Your task to perform on an android device: Open notification settings Image 0: 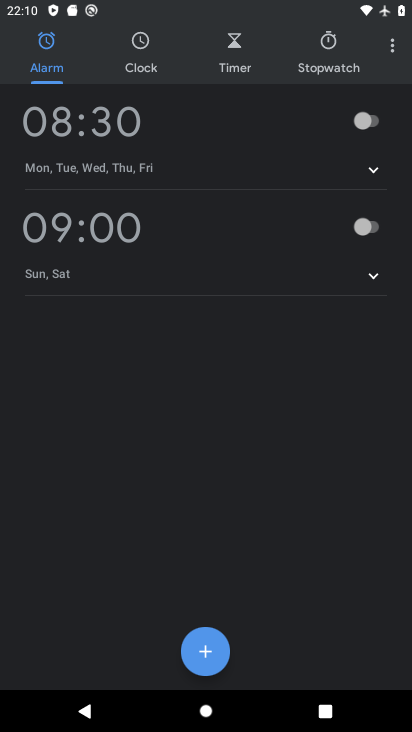
Step 0: press home button
Your task to perform on an android device: Open notification settings Image 1: 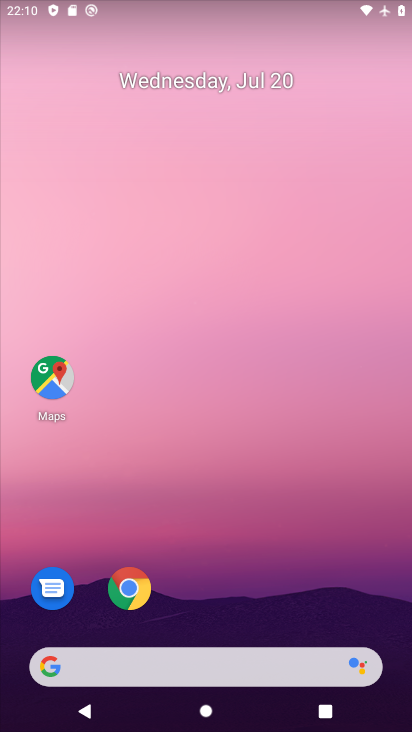
Step 1: drag from (340, 613) to (340, 65)
Your task to perform on an android device: Open notification settings Image 2: 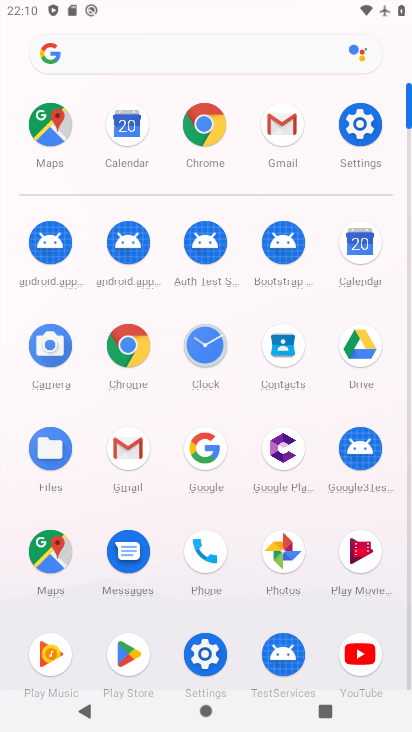
Step 2: click (205, 652)
Your task to perform on an android device: Open notification settings Image 3: 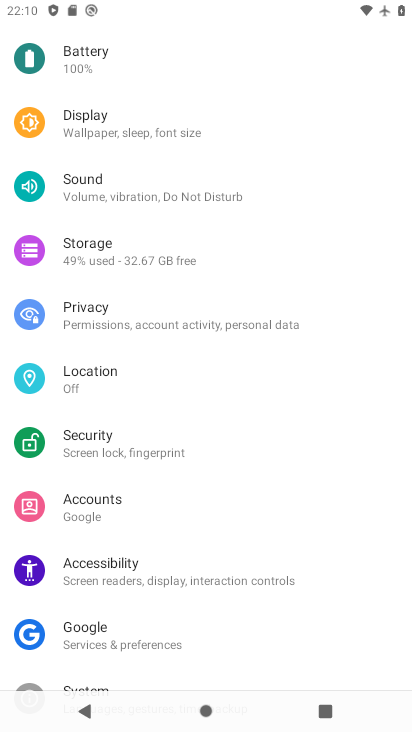
Step 3: drag from (340, 144) to (323, 398)
Your task to perform on an android device: Open notification settings Image 4: 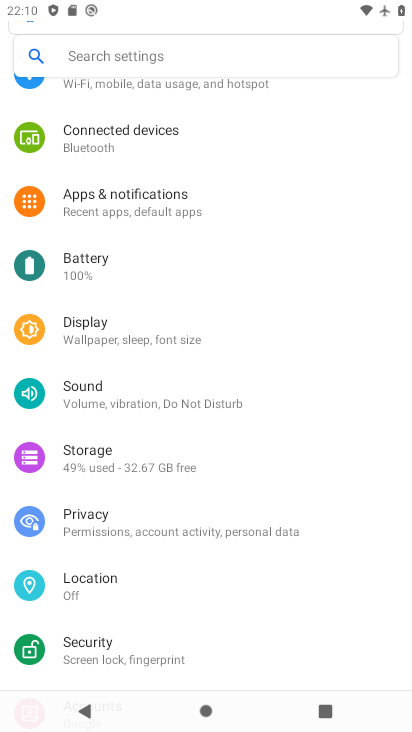
Step 4: click (116, 198)
Your task to perform on an android device: Open notification settings Image 5: 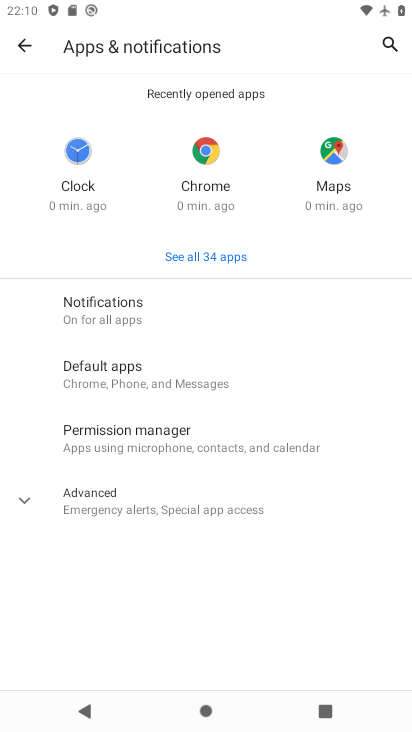
Step 5: click (106, 310)
Your task to perform on an android device: Open notification settings Image 6: 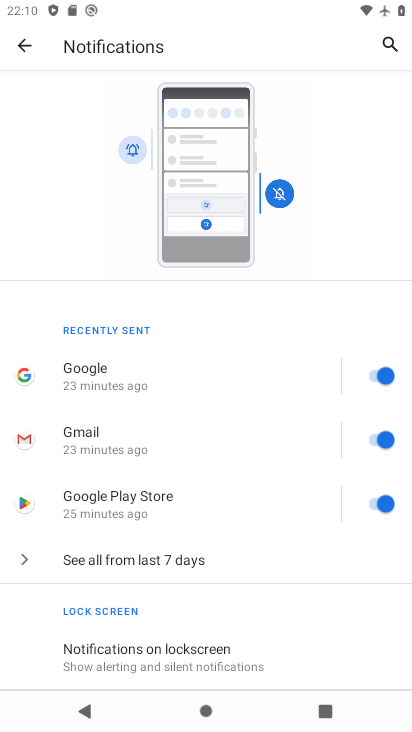
Step 6: drag from (239, 621) to (280, 156)
Your task to perform on an android device: Open notification settings Image 7: 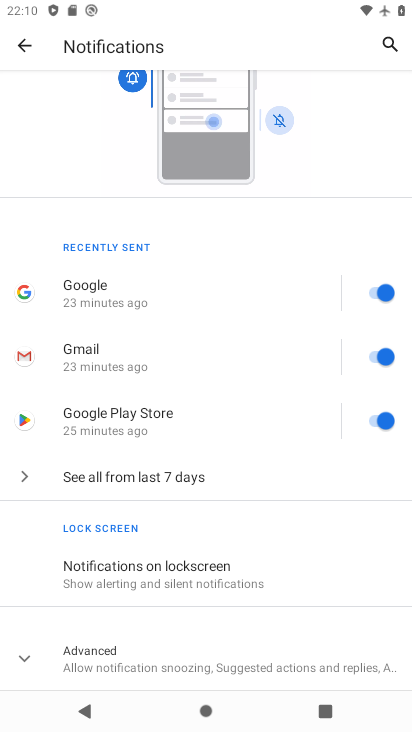
Step 7: click (21, 661)
Your task to perform on an android device: Open notification settings Image 8: 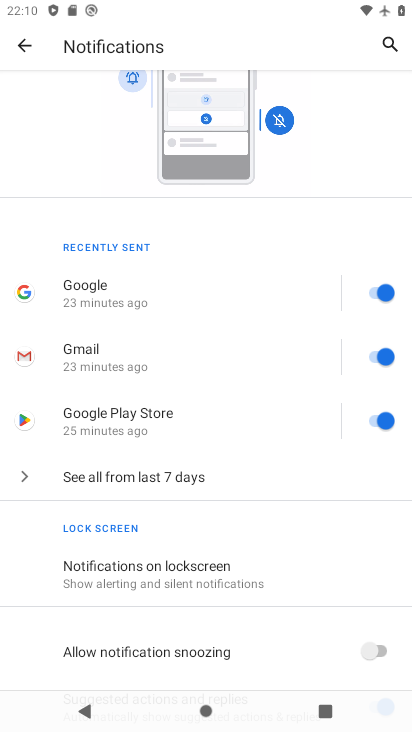
Step 8: task complete